Your task to perform on an android device: toggle notification dots Image 0: 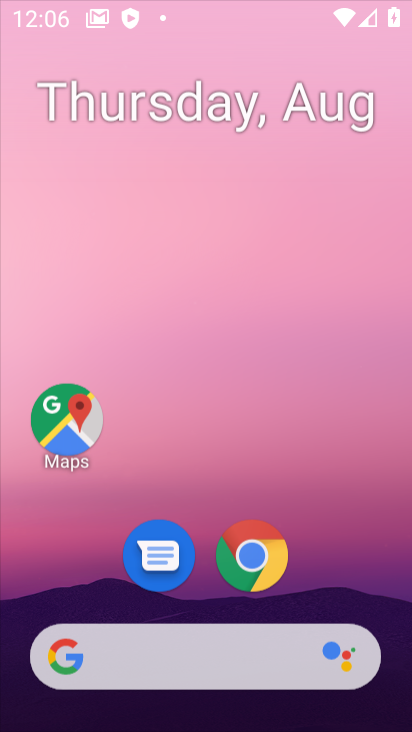
Step 0: press home button
Your task to perform on an android device: toggle notification dots Image 1: 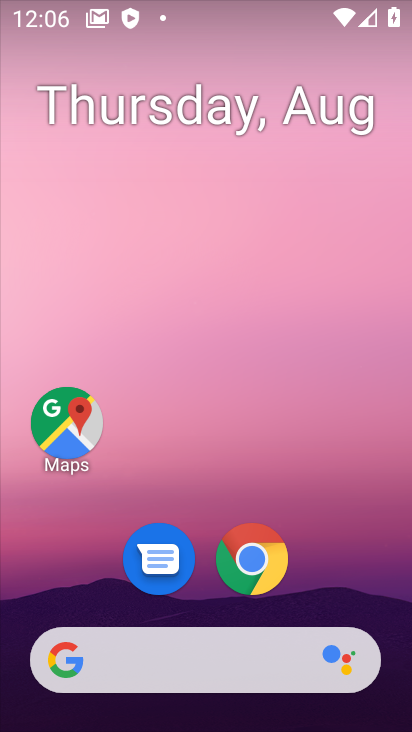
Step 1: drag from (202, 606) to (242, 0)
Your task to perform on an android device: toggle notification dots Image 2: 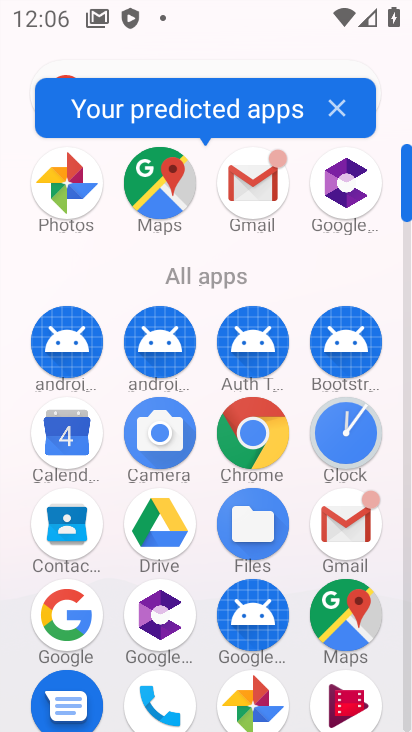
Step 2: drag from (205, 574) to (195, 125)
Your task to perform on an android device: toggle notification dots Image 3: 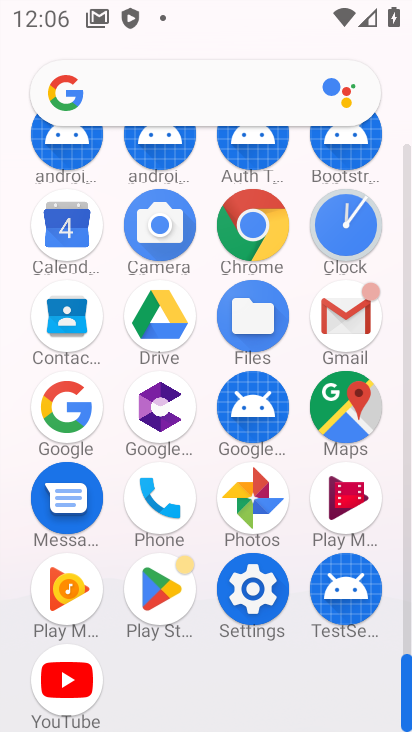
Step 3: click (248, 582)
Your task to perform on an android device: toggle notification dots Image 4: 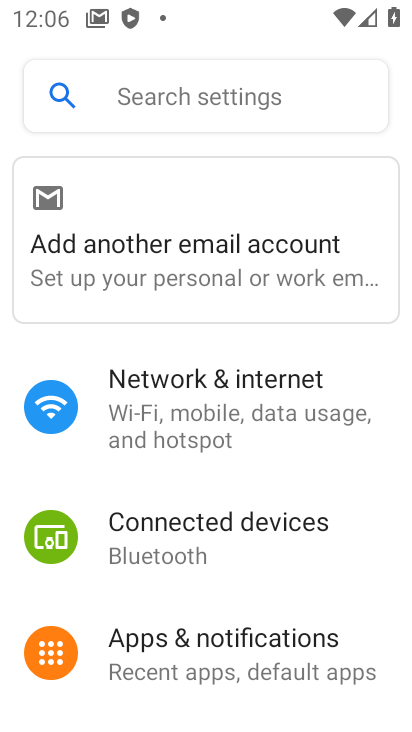
Step 4: click (225, 651)
Your task to perform on an android device: toggle notification dots Image 5: 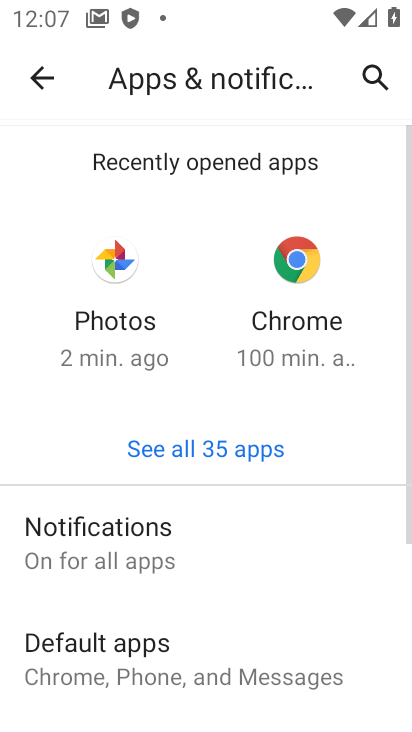
Step 5: click (196, 536)
Your task to perform on an android device: toggle notification dots Image 6: 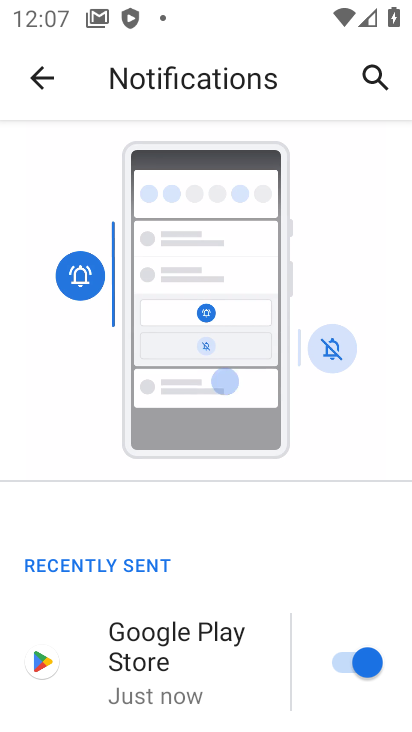
Step 6: drag from (235, 703) to (253, 56)
Your task to perform on an android device: toggle notification dots Image 7: 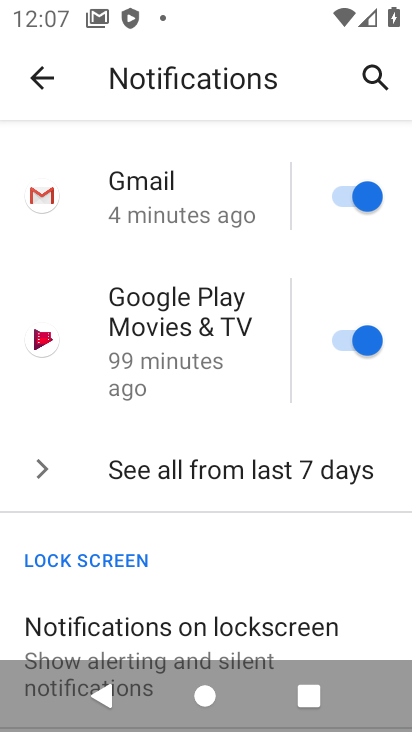
Step 7: drag from (232, 616) to (243, 56)
Your task to perform on an android device: toggle notification dots Image 8: 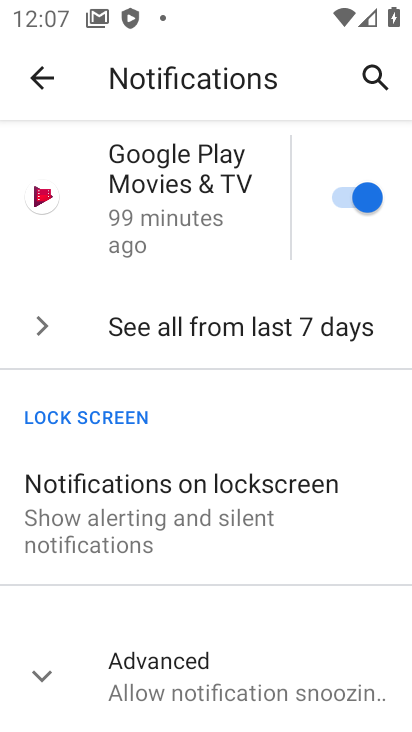
Step 8: click (41, 672)
Your task to perform on an android device: toggle notification dots Image 9: 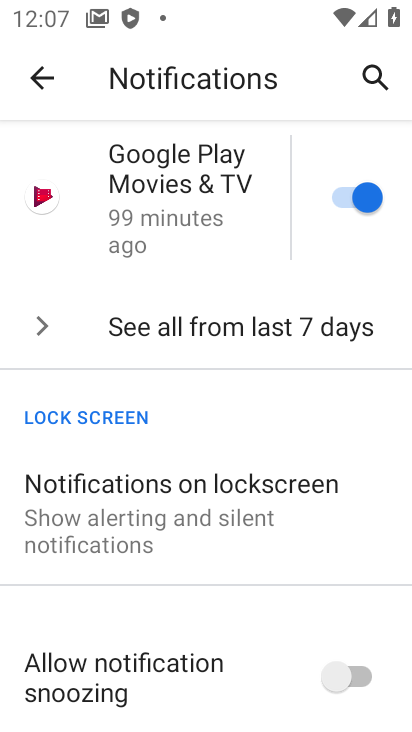
Step 9: drag from (237, 687) to (280, 42)
Your task to perform on an android device: toggle notification dots Image 10: 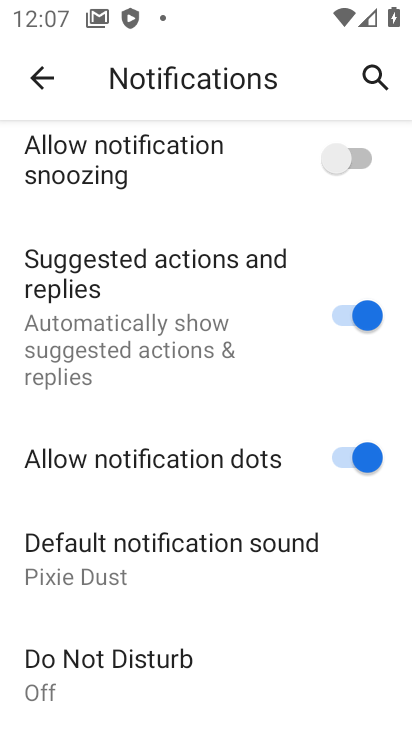
Step 10: click (344, 456)
Your task to perform on an android device: toggle notification dots Image 11: 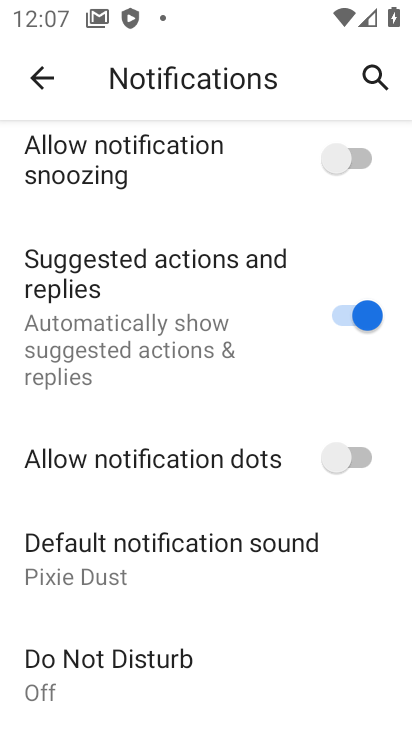
Step 11: task complete